Your task to perform on an android device: What's the weather today? Image 0: 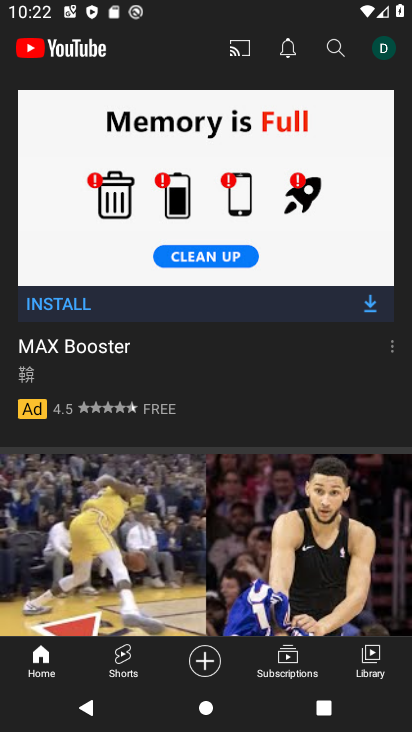
Step 0: press home button
Your task to perform on an android device: What's the weather today? Image 1: 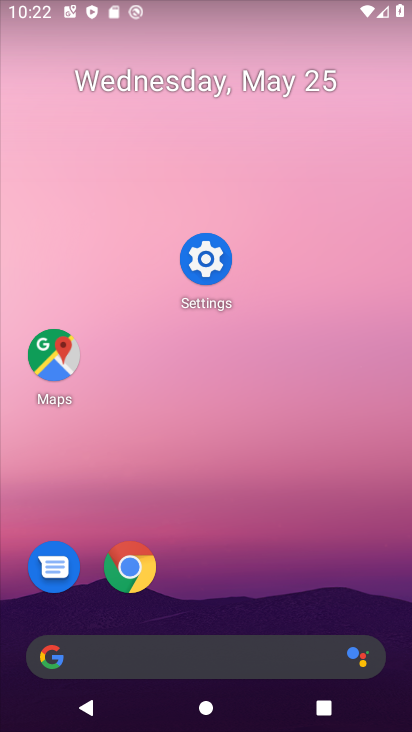
Step 1: drag from (227, 615) to (275, 4)
Your task to perform on an android device: What's the weather today? Image 2: 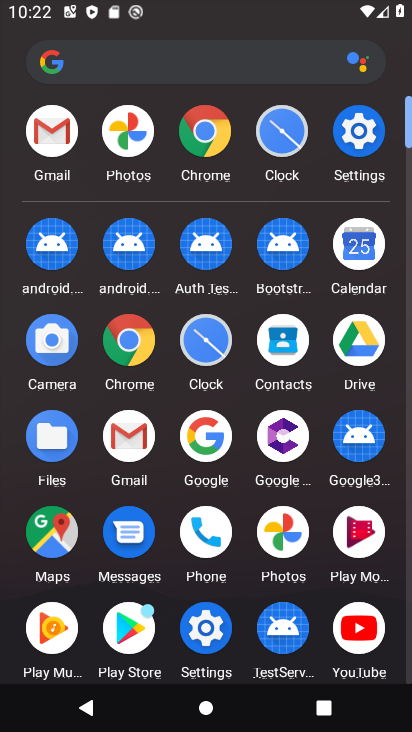
Step 2: click (215, 62)
Your task to perform on an android device: What's the weather today? Image 3: 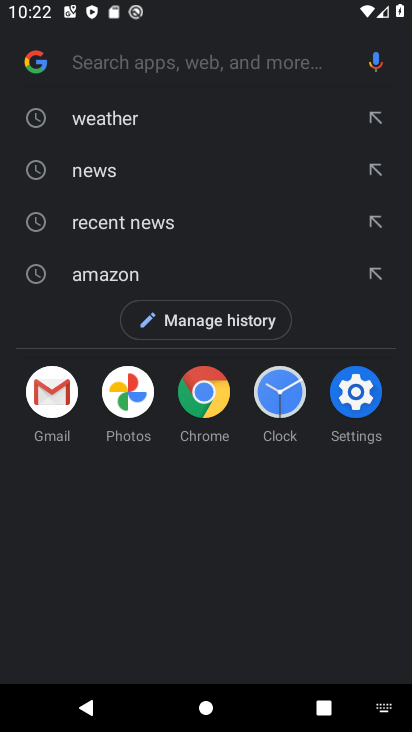
Step 3: click (170, 103)
Your task to perform on an android device: What's the weather today? Image 4: 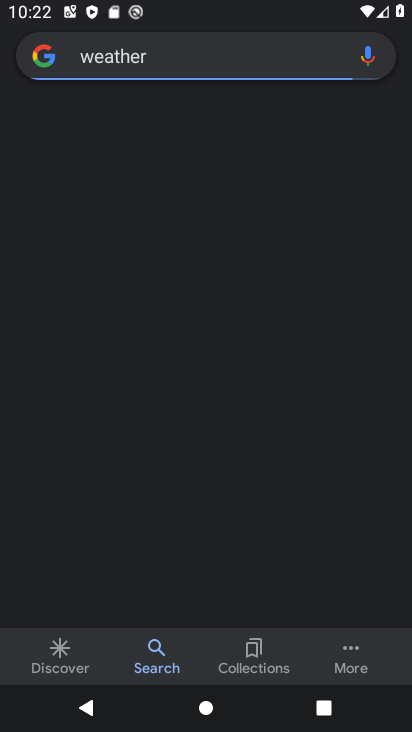
Step 4: task complete